Your task to perform on an android device: Open Google Chrome Image 0: 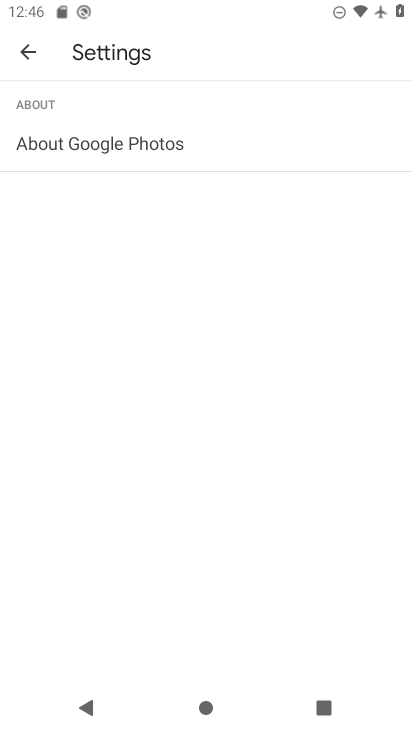
Step 0: press home button
Your task to perform on an android device: Open Google Chrome Image 1: 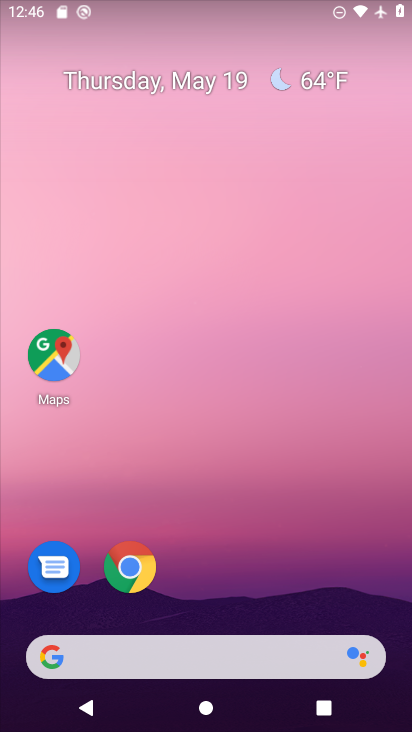
Step 1: click (127, 586)
Your task to perform on an android device: Open Google Chrome Image 2: 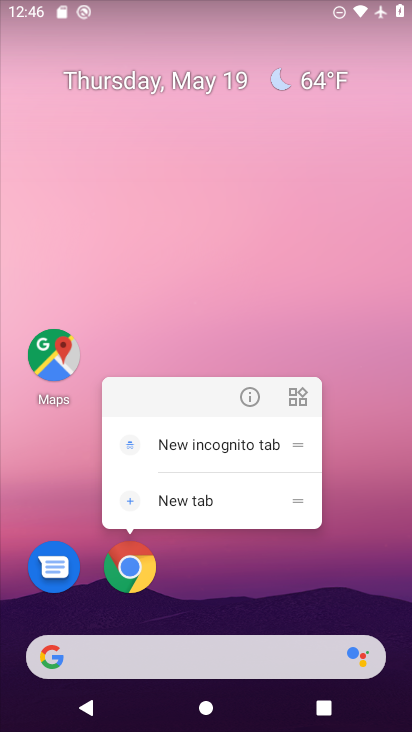
Step 2: click (129, 584)
Your task to perform on an android device: Open Google Chrome Image 3: 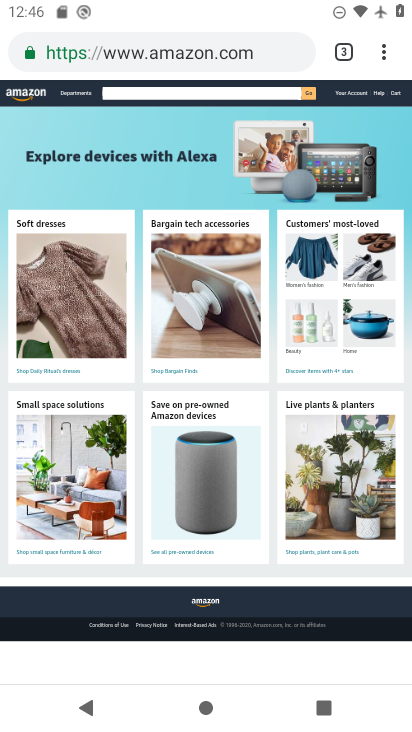
Step 3: task complete